Your task to perform on an android device: set default search engine in the chrome app Image 0: 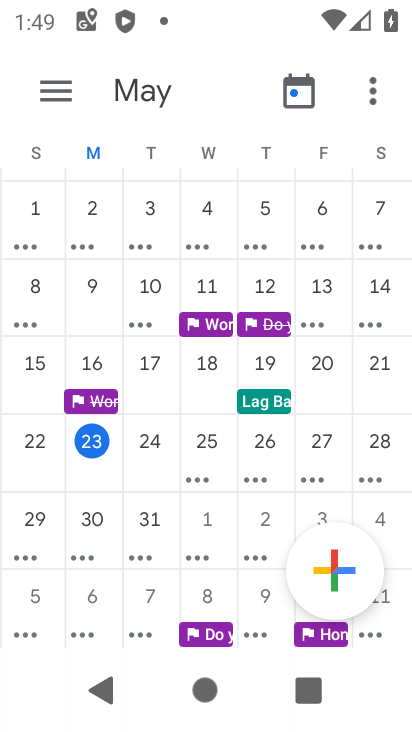
Step 0: press home button
Your task to perform on an android device: set default search engine in the chrome app Image 1: 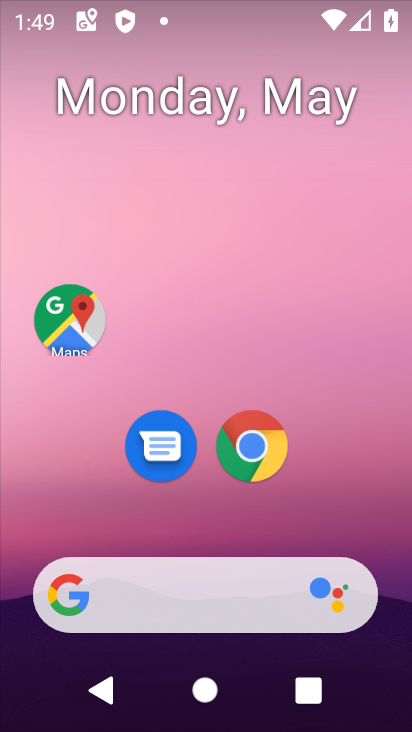
Step 1: click (255, 459)
Your task to perform on an android device: set default search engine in the chrome app Image 2: 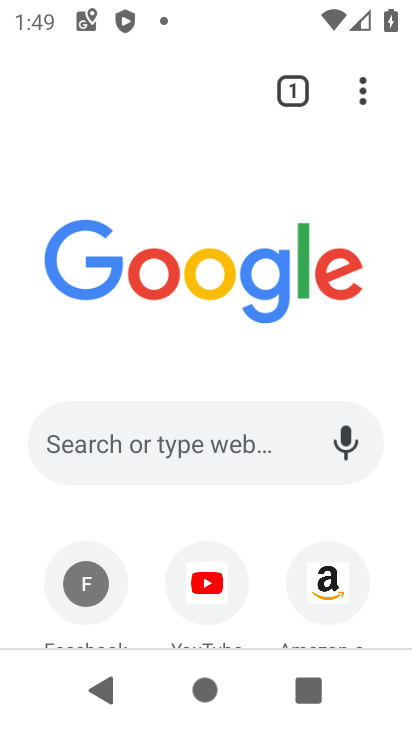
Step 2: drag from (351, 102) to (117, 471)
Your task to perform on an android device: set default search engine in the chrome app Image 3: 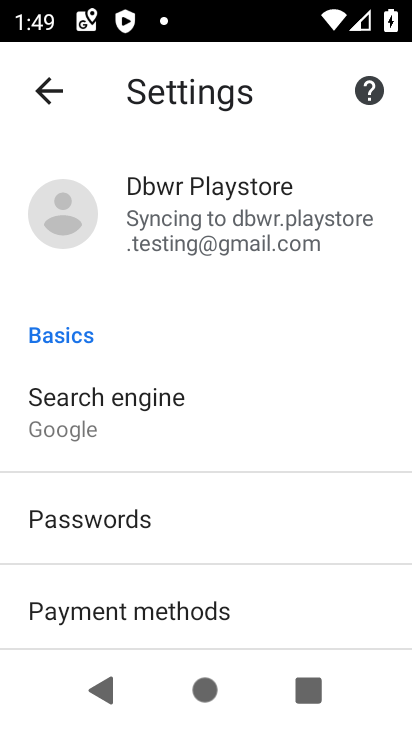
Step 3: click (106, 412)
Your task to perform on an android device: set default search engine in the chrome app Image 4: 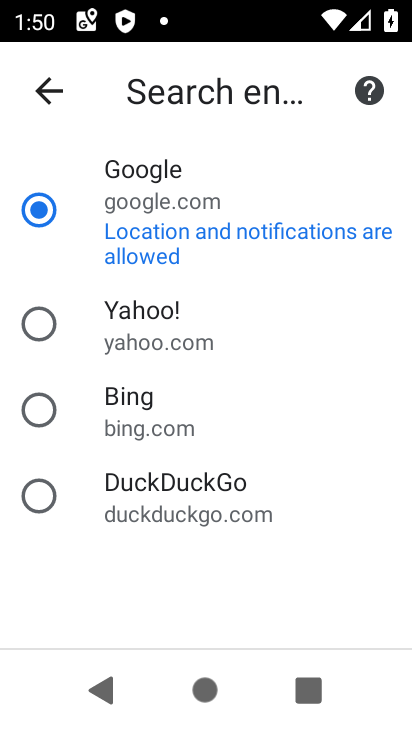
Step 4: click (226, 346)
Your task to perform on an android device: set default search engine in the chrome app Image 5: 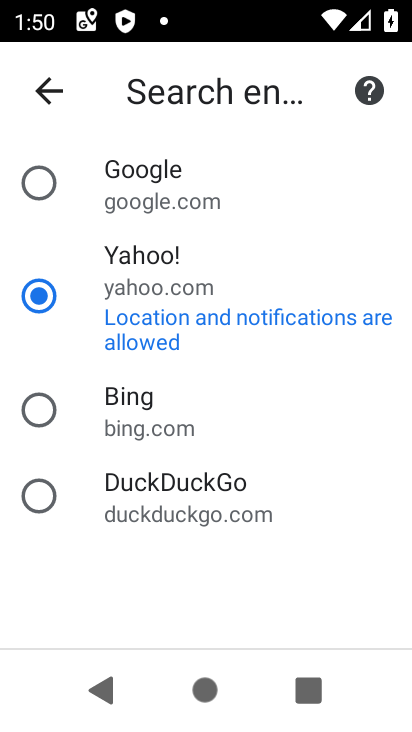
Step 5: task complete